Your task to perform on an android device: Search for a new skincare product Image 0: 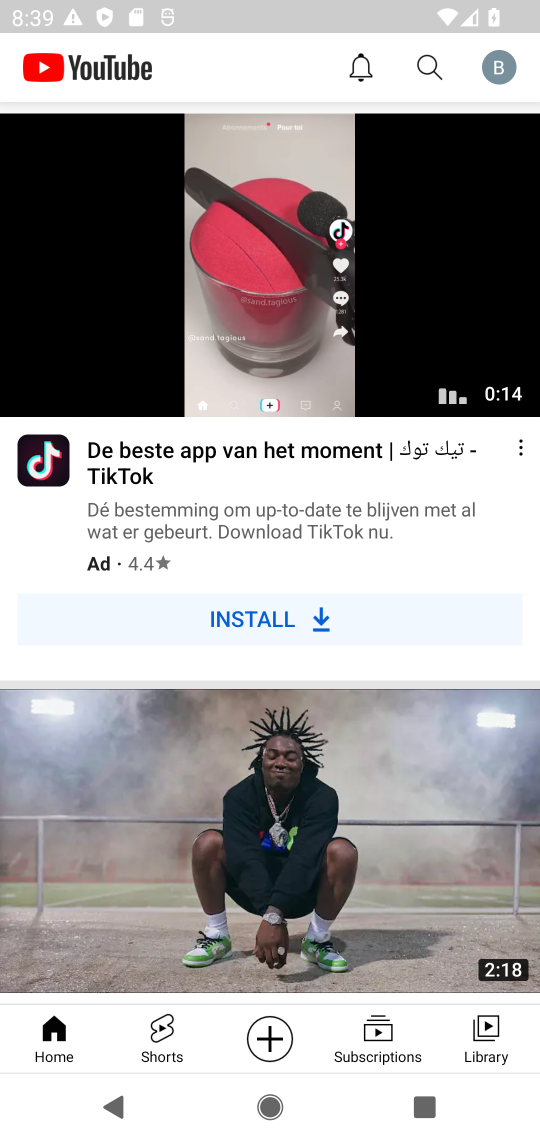
Step 0: press home button
Your task to perform on an android device: Search for a new skincare product Image 1: 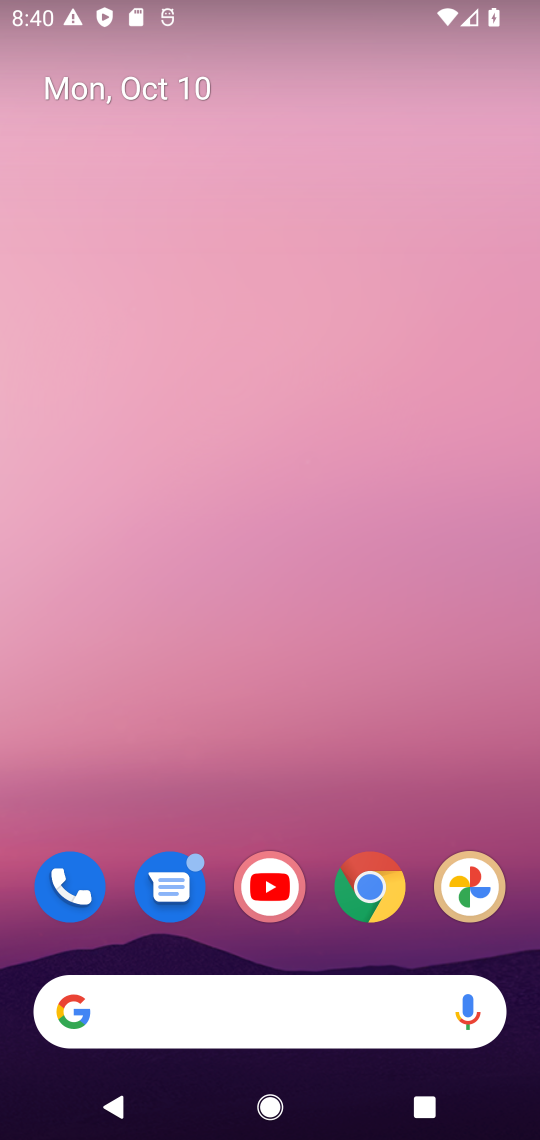
Step 1: click (388, 885)
Your task to perform on an android device: Search for a new skincare product Image 2: 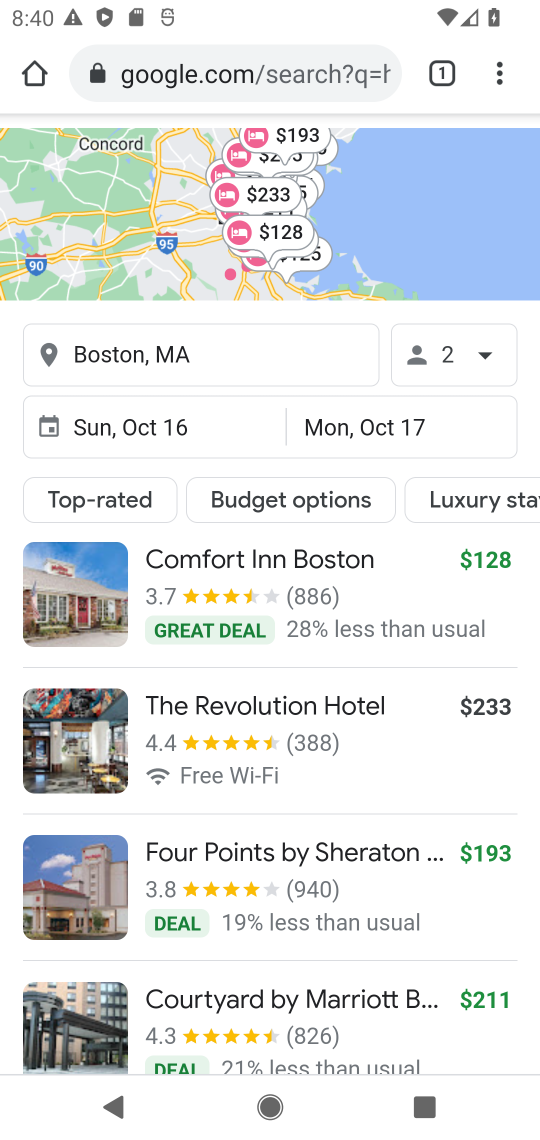
Step 2: click (285, 86)
Your task to perform on an android device: Search for a new skincare product Image 3: 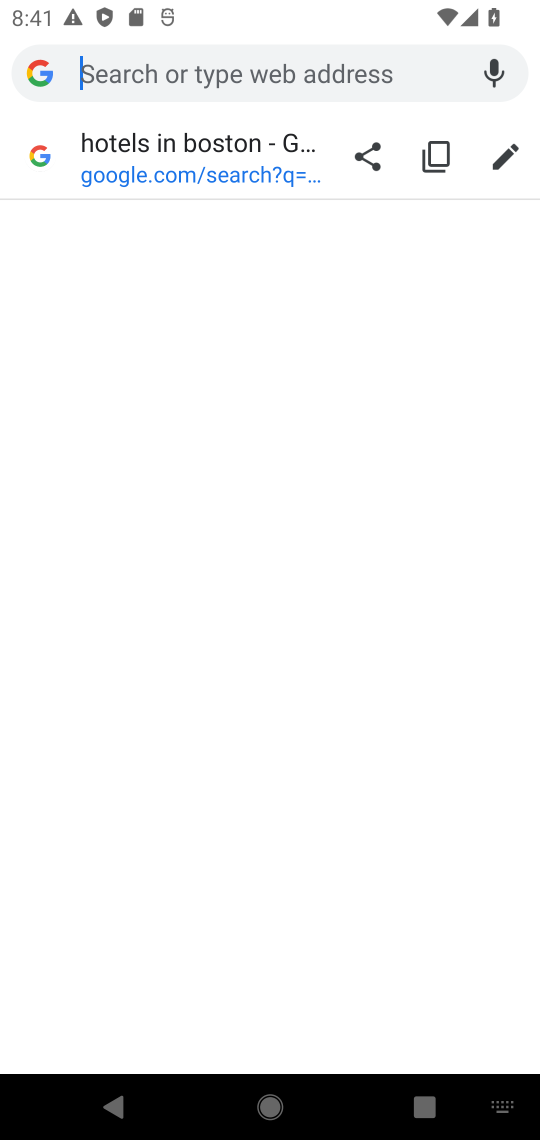
Step 3: type "new skincare product"
Your task to perform on an android device: Search for a new skincare product Image 4: 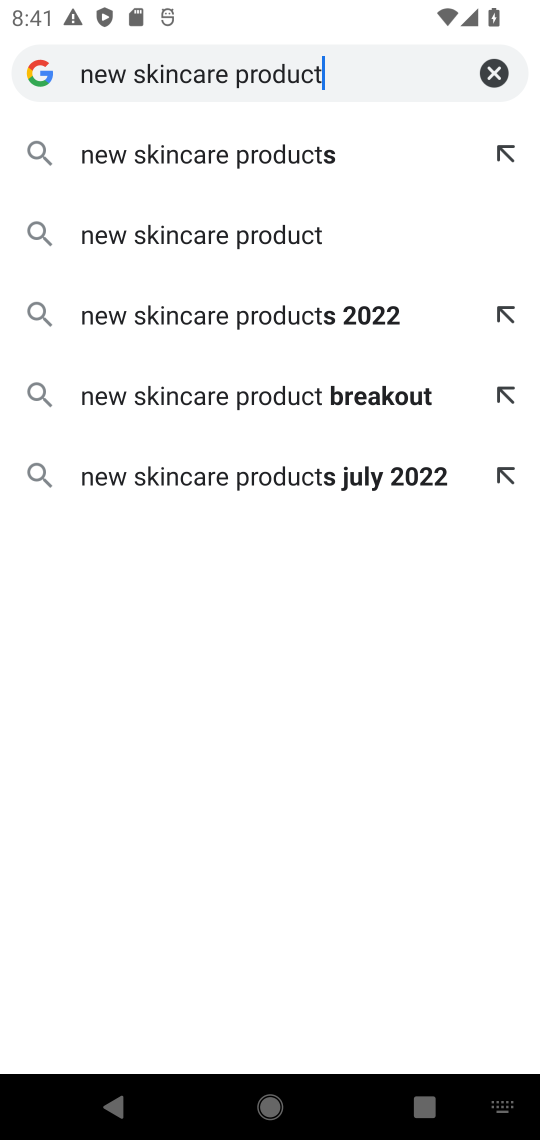
Step 4: click (297, 159)
Your task to perform on an android device: Search for a new skincare product Image 5: 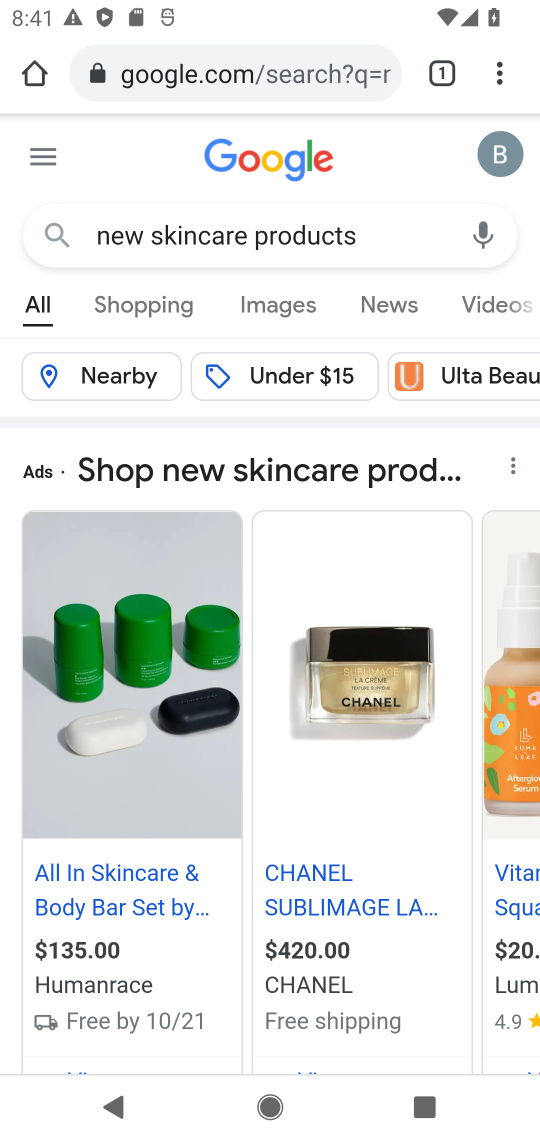
Step 5: task complete